Your task to perform on an android device: turn on bluetooth scan Image 0: 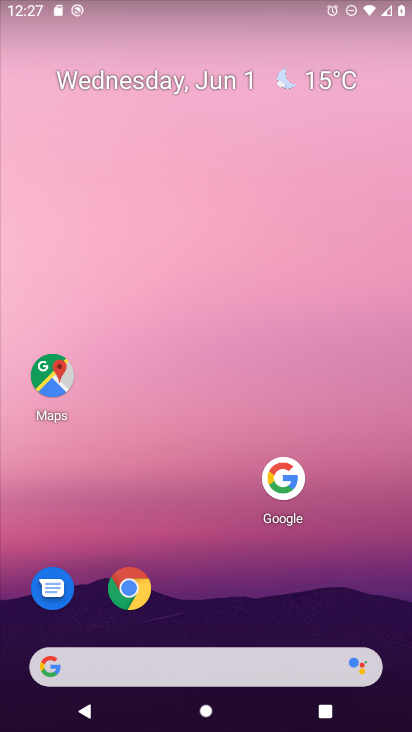
Step 0: press home button
Your task to perform on an android device: turn on bluetooth scan Image 1: 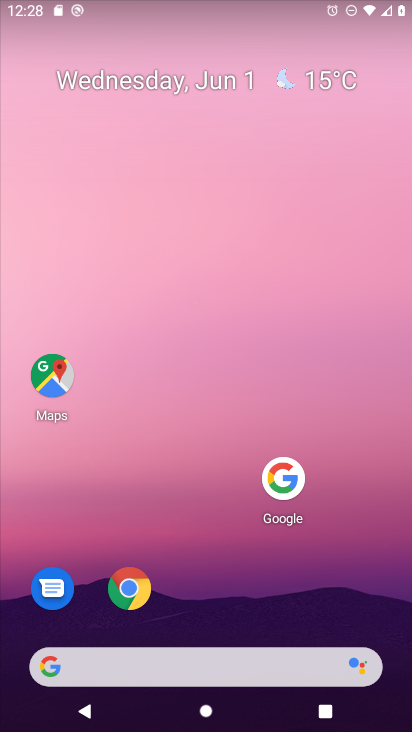
Step 1: drag from (129, 660) to (281, 176)
Your task to perform on an android device: turn on bluetooth scan Image 2: 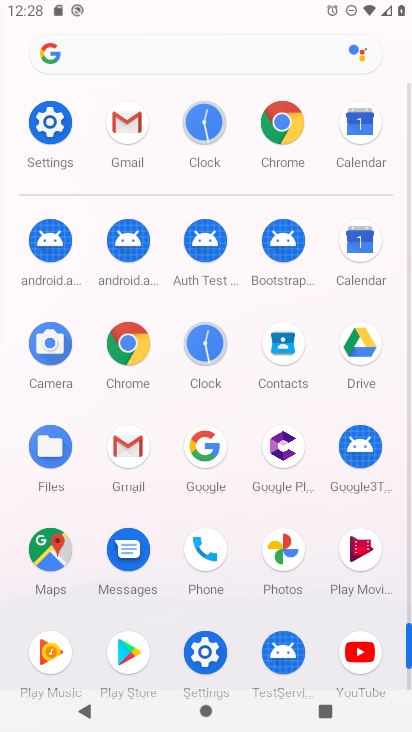
Step 2: click (55, 128)
Your task to perform on an android device: turn on bluetooth scan Image 3: 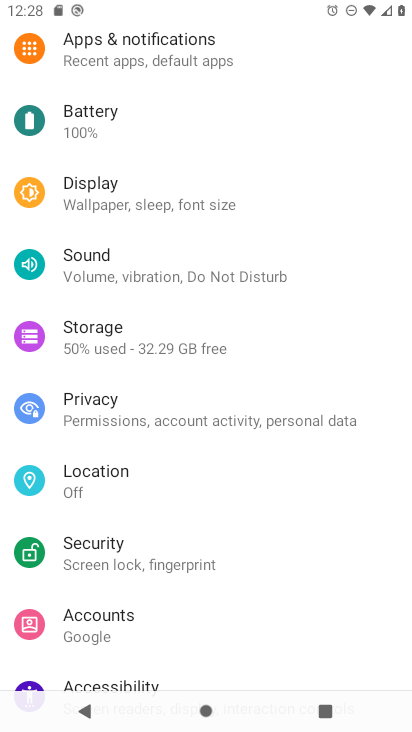
Step 3: click (109, 478)
Your task to perform on an android device: turn on bluetooth scan Image 4: 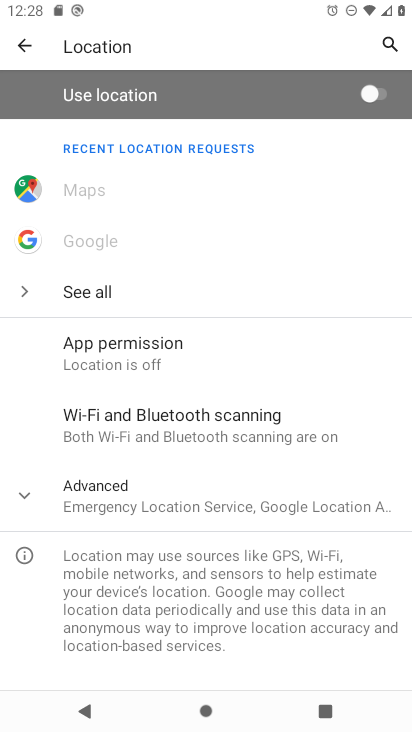
Step 4: click (163, 429)
Your task to perform on an android device: turn on bluetooth scan Image 5: 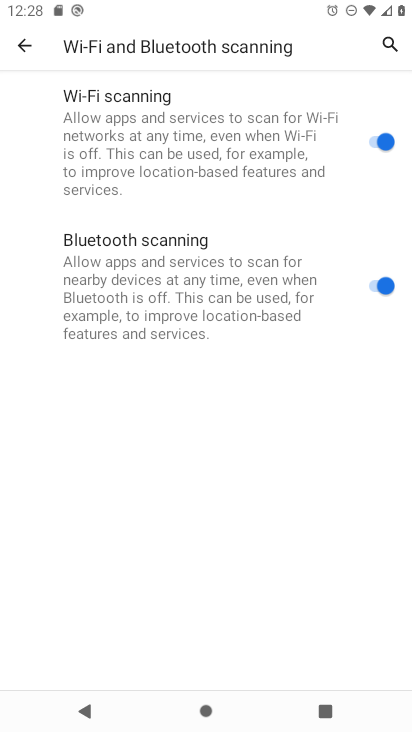
Step 5: task complete